Your task to perform on an android device: turn on the 12-hour format for clock Image 0: 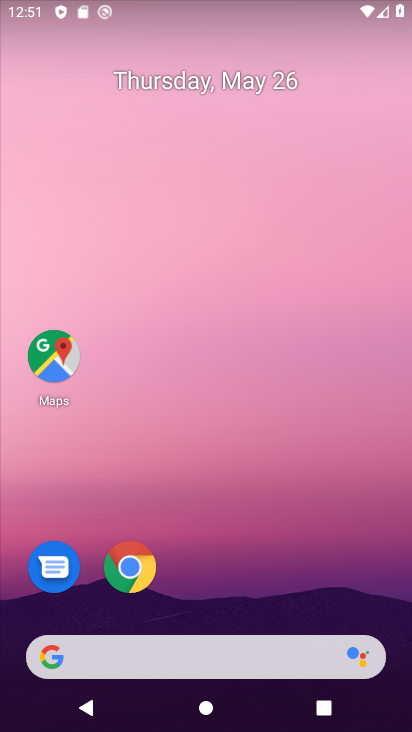
Step 0: drag from (236, 517) to (225, 42)
Your task to perform on an android device: turn on the 12-hour format for clock Image 1: 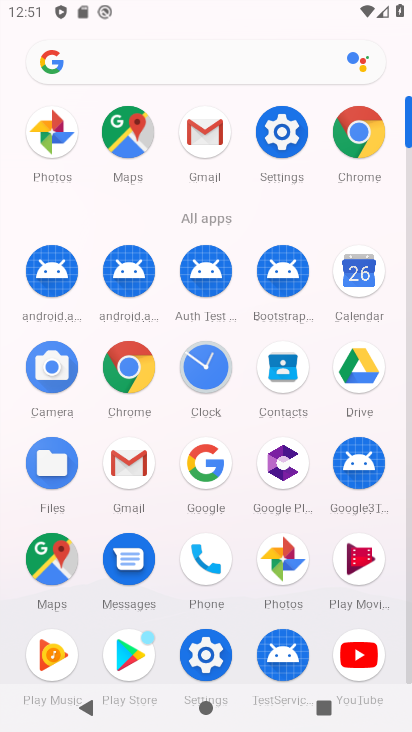
Step 1: click (202, 366)
Your task to perform on an android device: turn on the 12-hour format for clock Image 2: 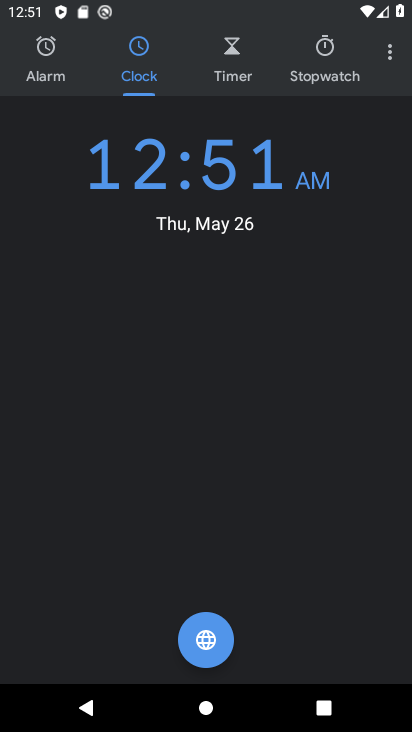
Step 2: click (381, 50)
Your task to perform on an android device: turn on the 12-hour format for clock Image 3: 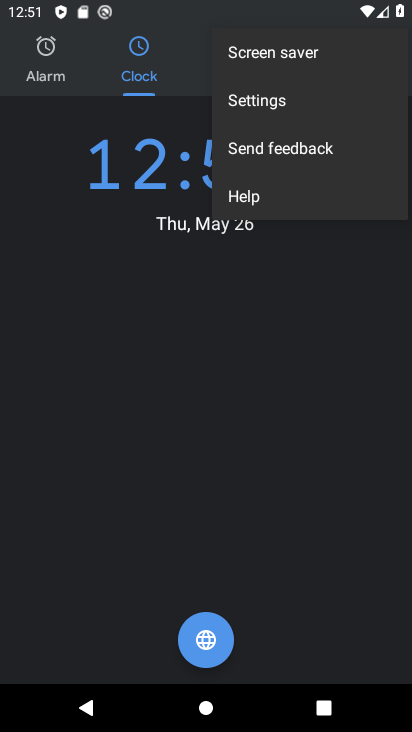
Step 3: click (279, 105)
Your task to perform on an android device: turn on the 12-hour format for clock Image 4: 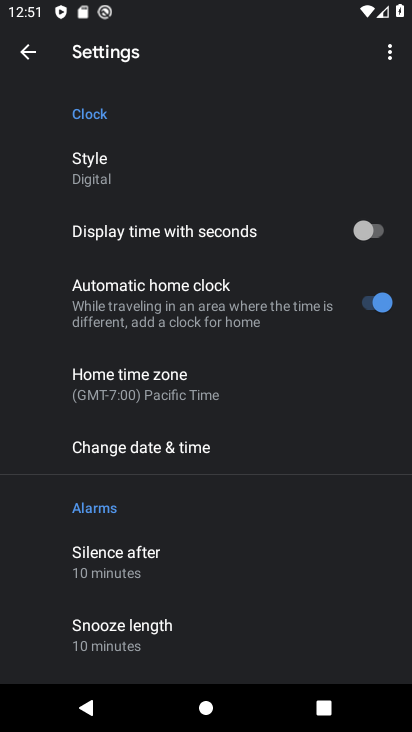
Step 4: click (203, 445)
Your task to perform on an android device: turn on the 12-hour format for clock Image 5: 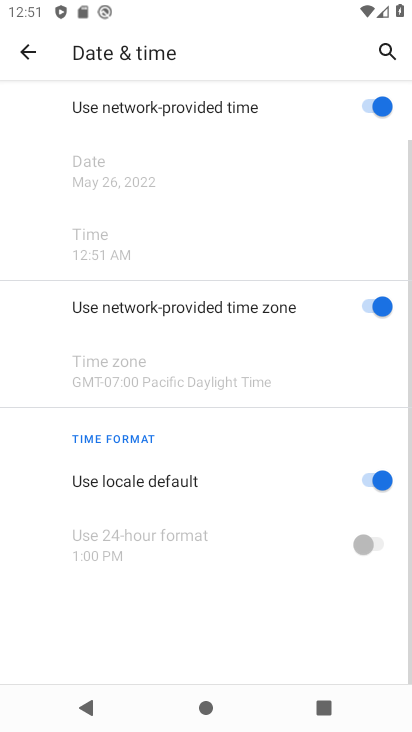
Step 5: task complete